Your task to perform on an android device: Open settings on Google Maps Image 0: 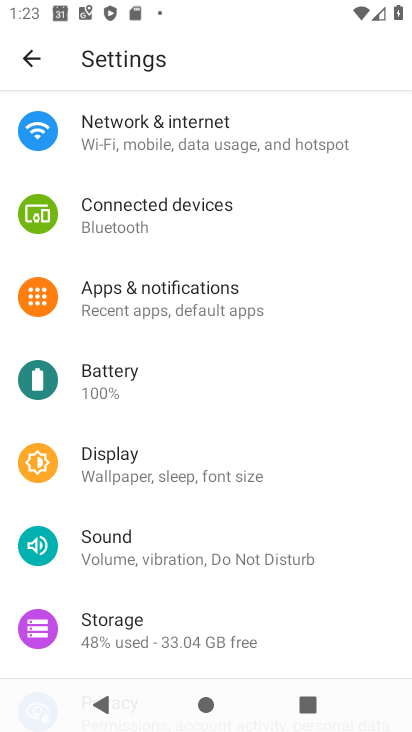
Step 0: press home button
Your task to perform on an android device: Open settings on Google Maps Image 1: 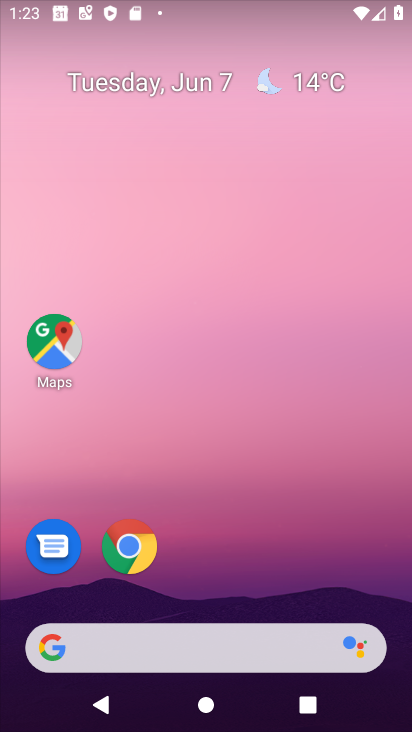
Step 1: click (57, 351)
Your task to perform on an android device: Open settings on Google Maps Image 2: 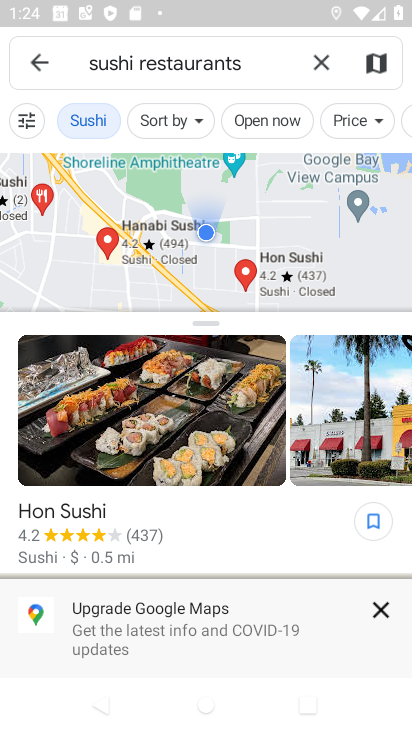
Step 2: click (42, 62)
Your task to perform on an android device: Open settings on Google Maps Image 3: 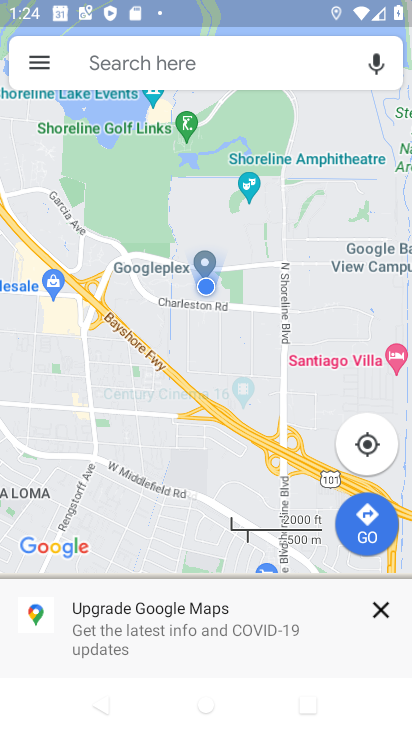
Step 3: click (42, 62)
Your task to perform on an android device: Open settings on Google Maps Image 4: 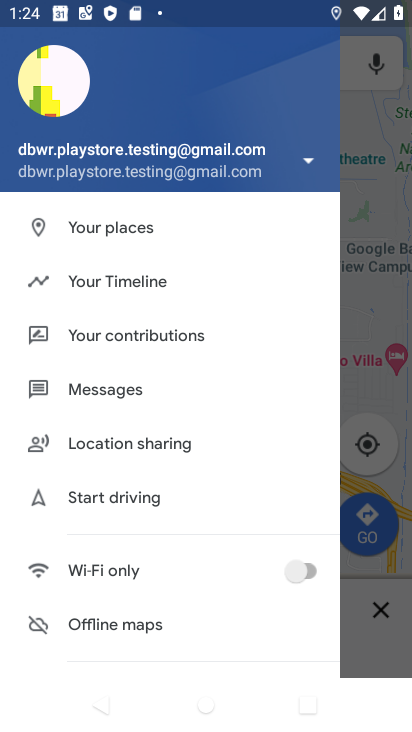
Step 4: drag from (194, 667) to (87, 227)
Your task to perform on an android device: Open settings on Google Maps Image 5: 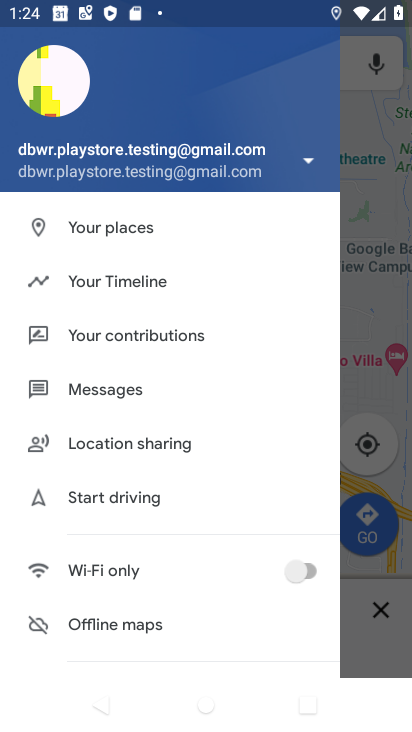
Step 5: drag from (103, 591) to (48, 28)
Your task to perform on an android device: Open settings on Google Maps Image 6: 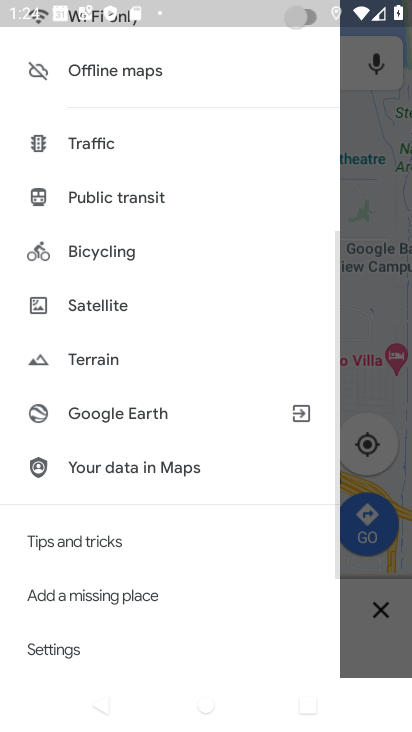
Step 6: click (80, 628)
Your task to perform on an android device: Open settings on Google Maps Image 7: 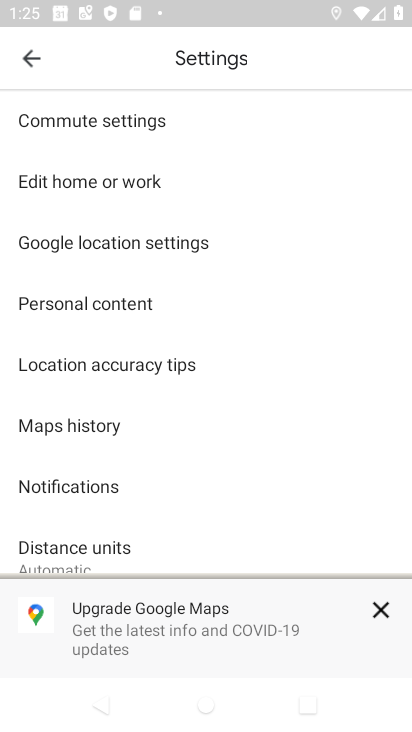
Step 7: task complete